Your task to perform on an android device: clear history in the chrome app Image 0: 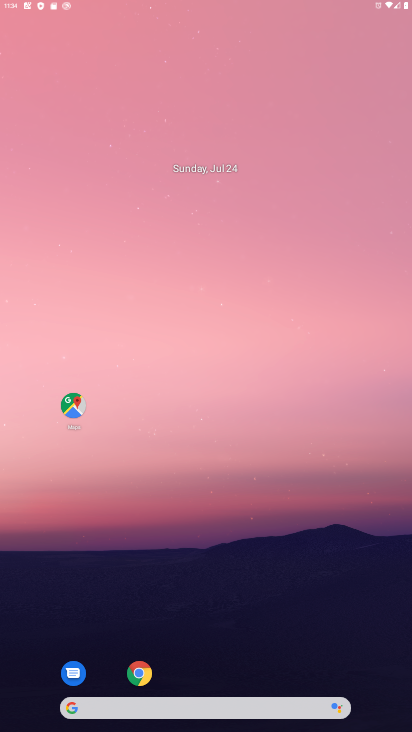
Step 0: drag from (320, 674) to (253, 76)
Your task to perform on an android device: clear history in the chrome app Image 1: 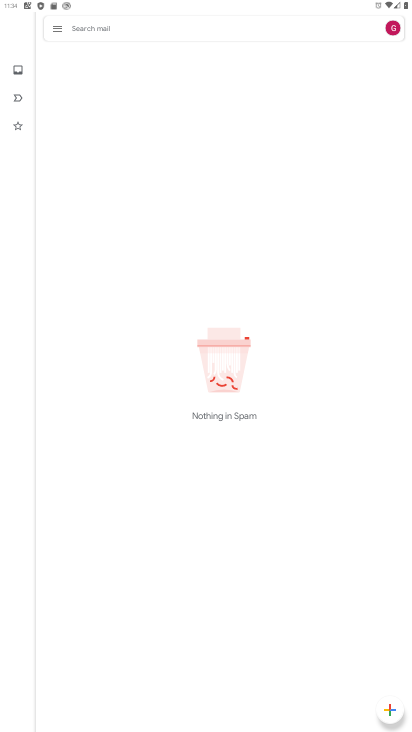
Step 1: press home button
Your task to perform on an android device: clear history in the chrome app Image 2: 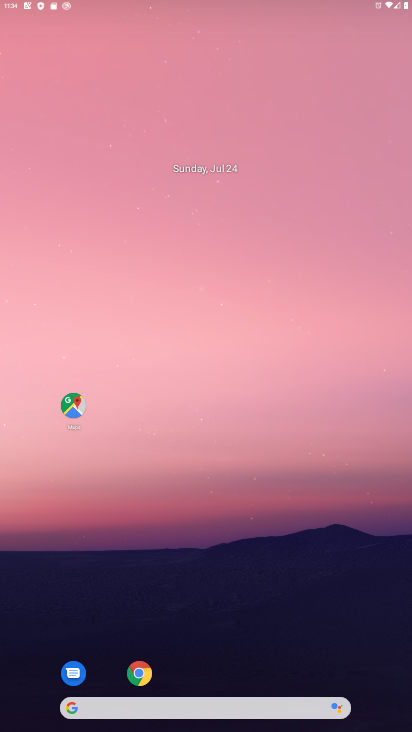
Step 2: drag from (280, 638) to (275, 59)
Your task to perform on an android device: clear history in the chrome app Image 3: 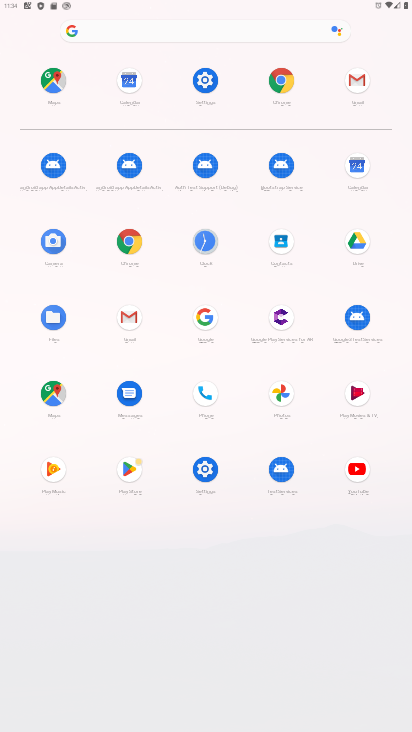
Step 3: click (285, 74)
Your task to perform on an android device: clear history in the chrome app Image 4: 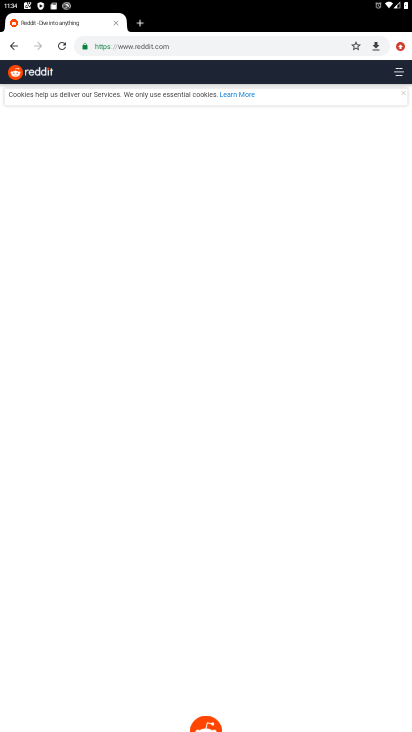
Step 4: drag from (406, 45) to (304, 174)
Your task to perform on an android device: clear history in the chrome app Image 5: 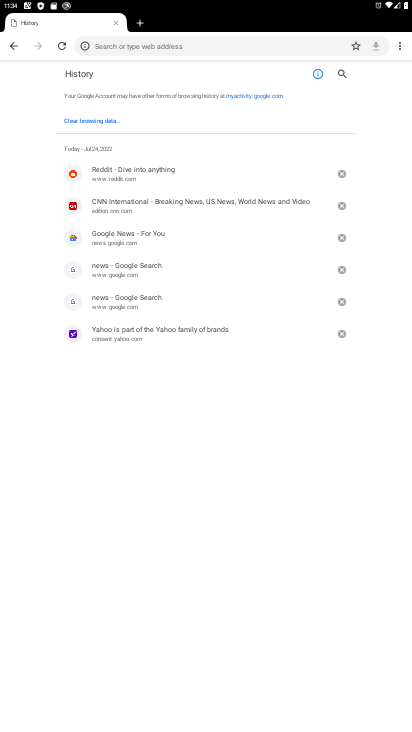
Step 5: click (103, 117)
Your task to perform on an android device: clear history in the chrome app Image 6: 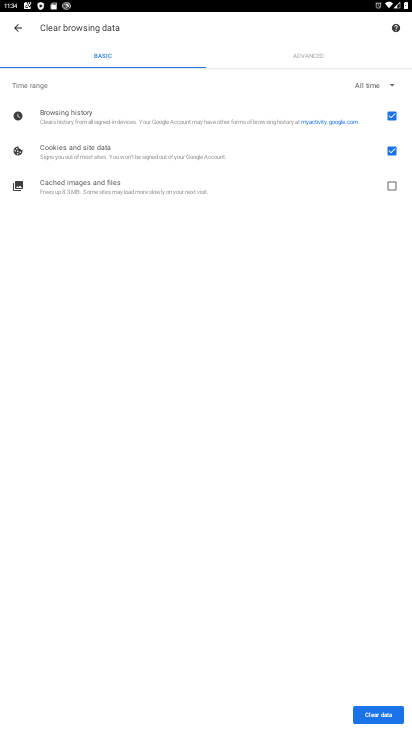
Step 6: click (389, 716)
Your task to perform on an android device: clear history in the chrome app Image 7: 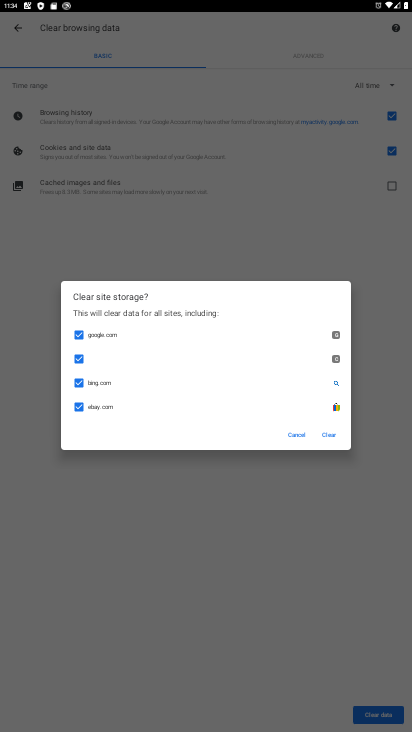
Step 7: click (326, 433)
Your task to perform on an android device: clear history in the chrome app Image 8: 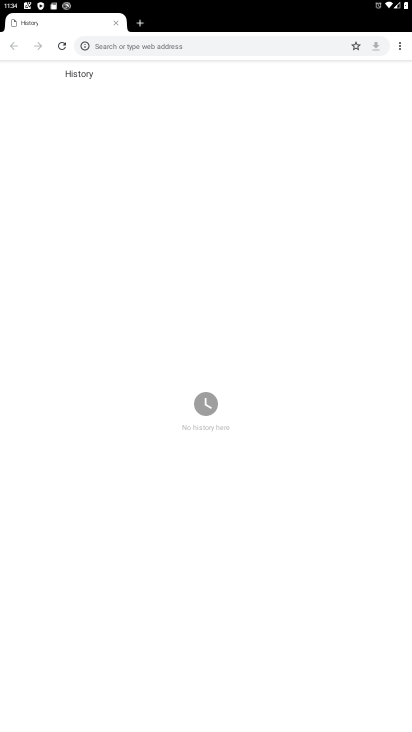
Step 8: task complete